Your task to perform on an android device: Open privacy settings Image 0: 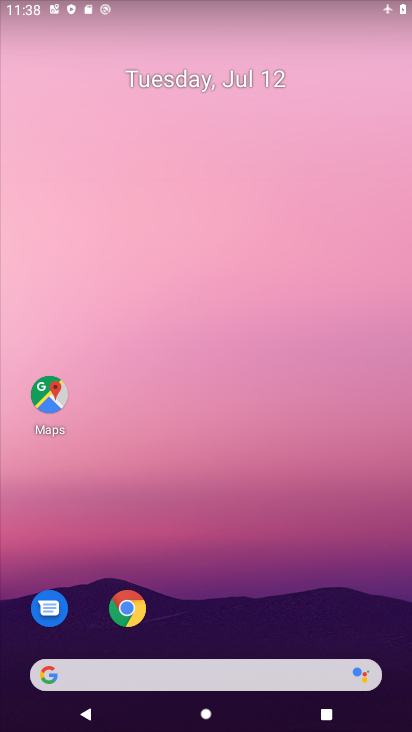
Step 0: drag from (237, 670) to (231, 146)
Your task to perform on an android device: Open privacy settings Image 1: 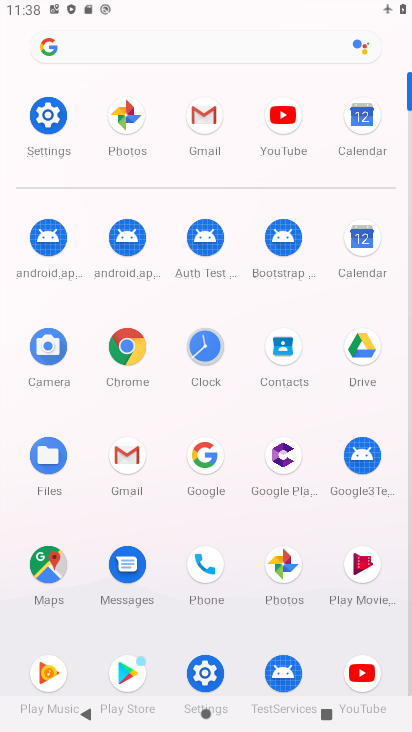
Step 1: click (48, 112)
Your task to perform on an android device: Open privacy settings Image 2: 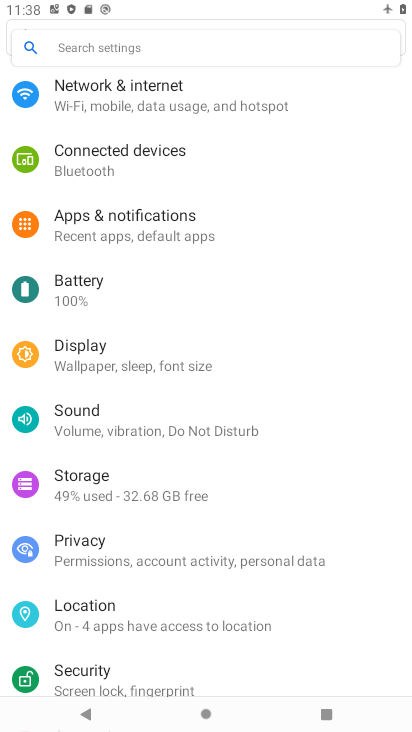
Step 2: click (74, 543)
Your task to perform on an android device: Open privacy settings Image 3: 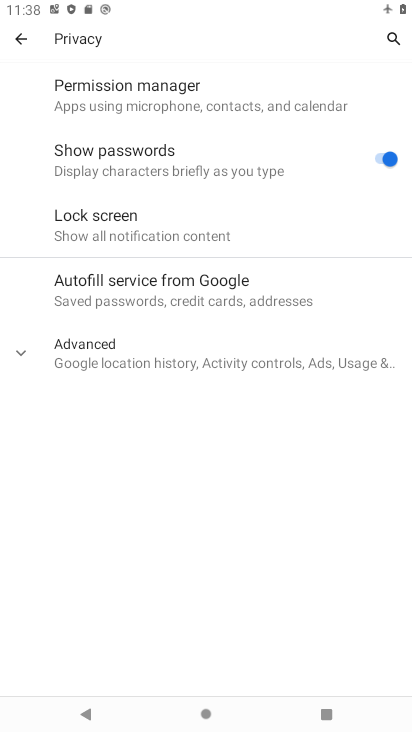
Step 3: task complete